Your task to perform on an android device: change the clock display to show seconds Image 0: 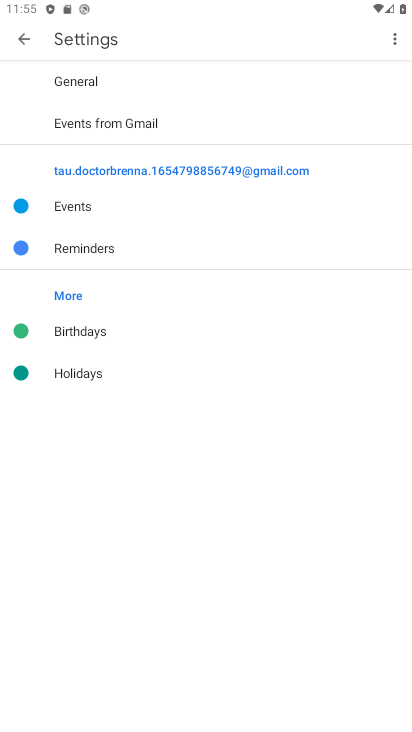
Step 0: press home button
Your task to perform on an android device: change the clock display to show seconds Image 1: 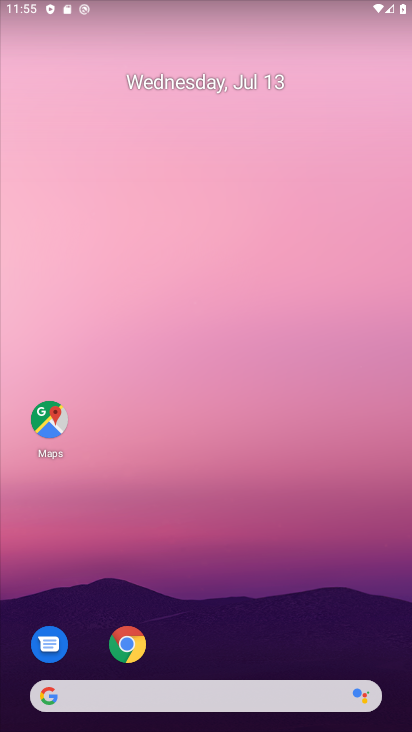
Step 1: drag from (209, 641) to (206, 124)
Your task to perform on an android device: change the clock display to show seconds Image 2: 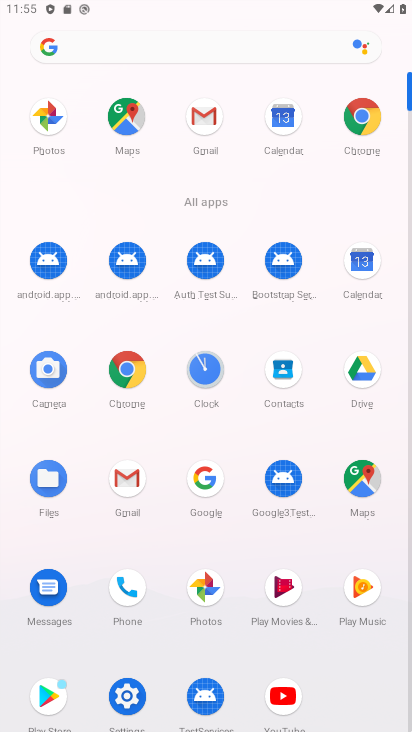
Step 2: click (203, 386)
Your task to perform on an android device: change the clock display to show seconds Image 3: 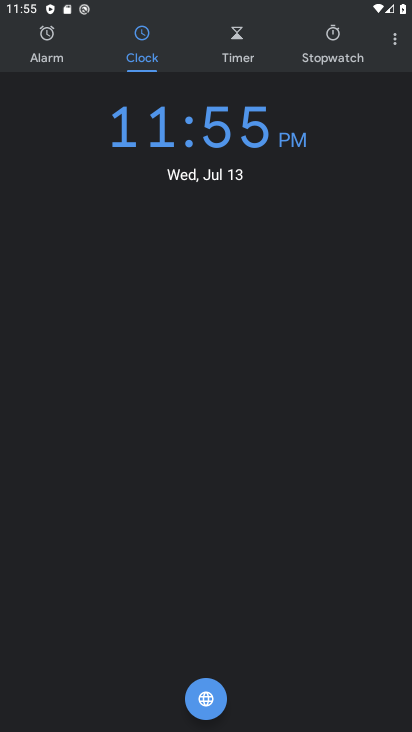
Step 3: click (398, 40)
Your task to perform on an android device: change the clock display to show seconds Image 4: 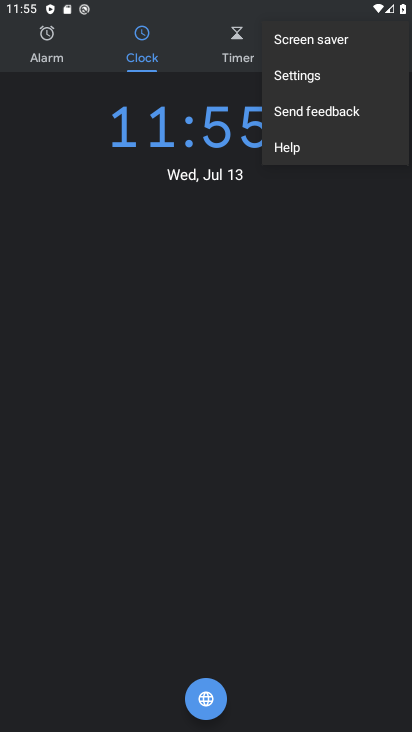
Step 4: click (339, 80)
Your task to perform on an android device: change the clock display to show seconds Image 5: 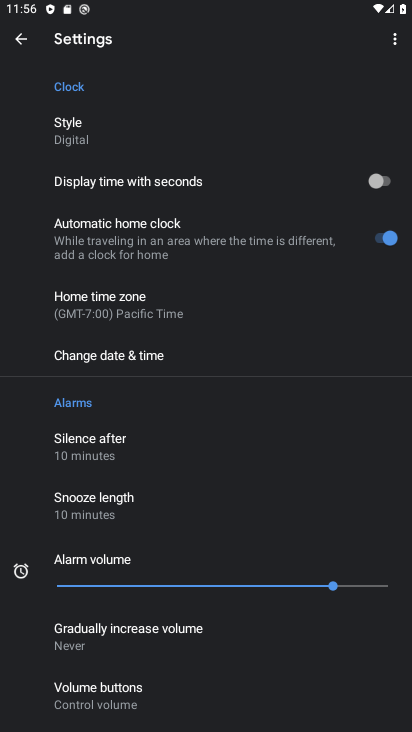
Step 5: click (375, 179)
Your task to perform on an android device: change the clock display to show seconds Image 6: 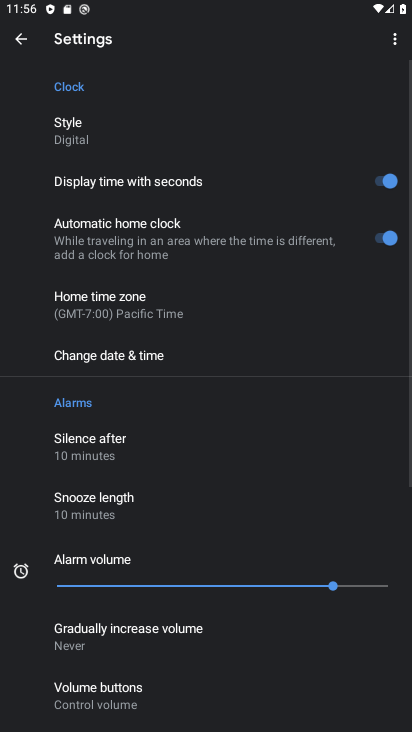
Step 6: task complete